Your task to perform on an android device: change the clock display to digital Image 0: 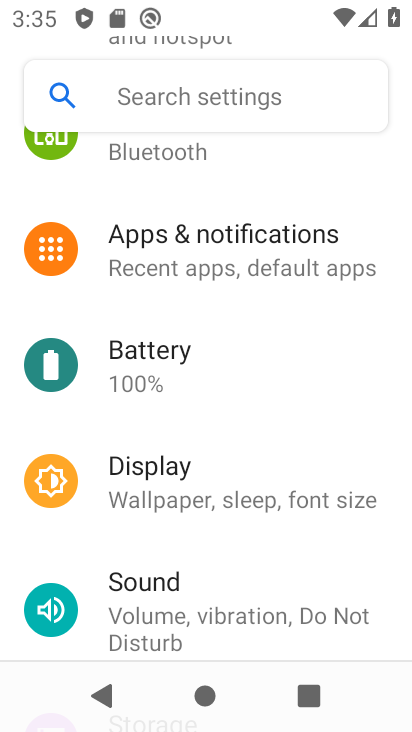
Step 0: press home button
Your task to perform on an android device: change the clock display to digital Image 1: 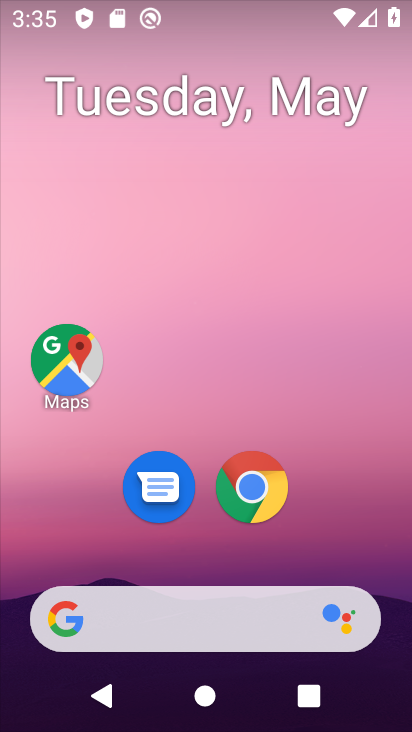
Step 1: drag from (228, 563) to (309, 8)
Your task to perform on an android device: change the clock display to digital Image 2: 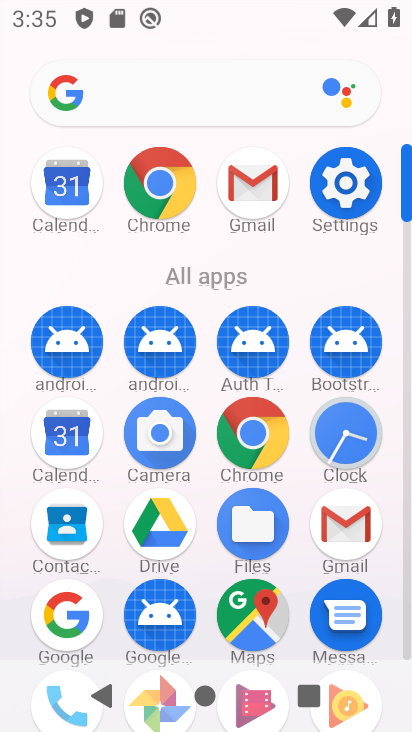
Step 2: click (352, 435)
Your task to perform on an android device: change the clock display to digital Image 3: 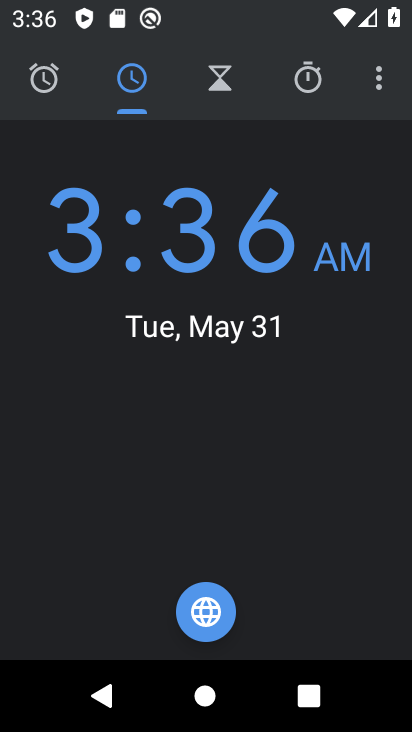
Step 3: click (379, 89)
Your task to perform on an android device: change the clock display to digital Image 4: 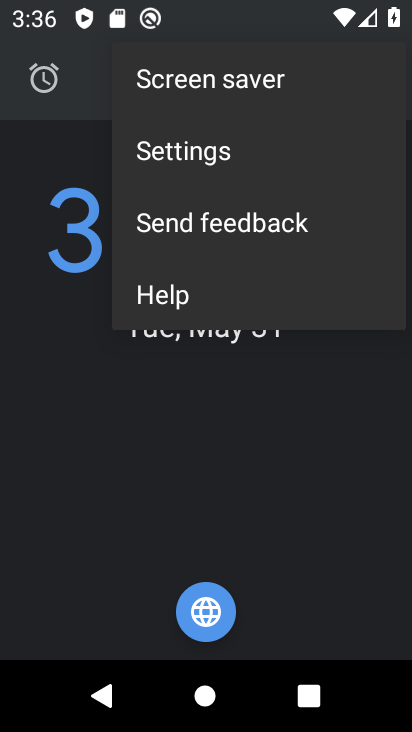
Step 4: click (249, 157)
Your task to perform on an android device: change the clock display to digital Image 5: 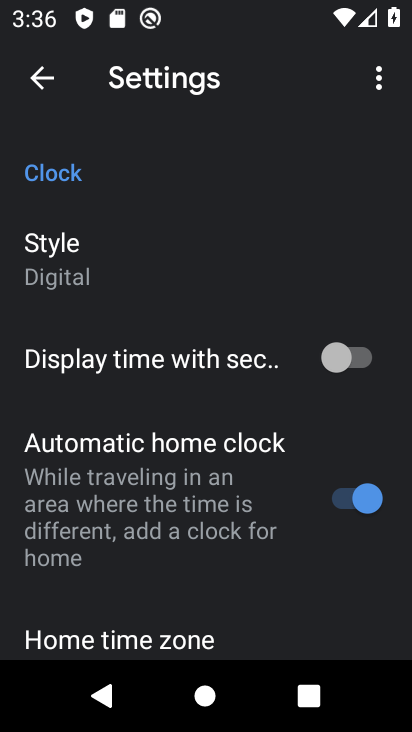
Step 5: task complete